Your task to perform on an android device: turn off notifications in google photos Image 0: 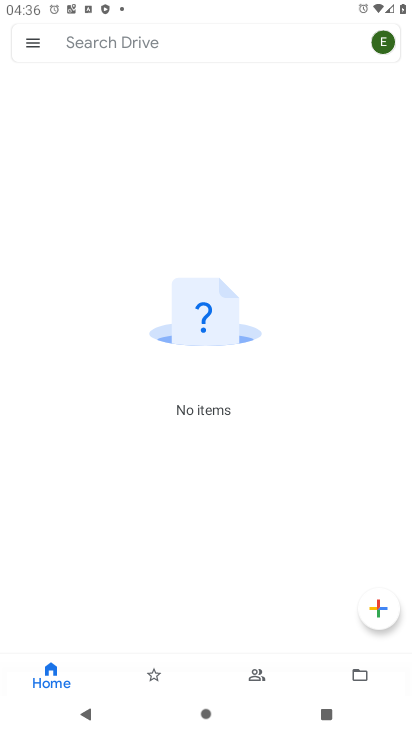
Step 0: press home button
Your task to perform on an android device: turn off notifications in google photos Image 1: 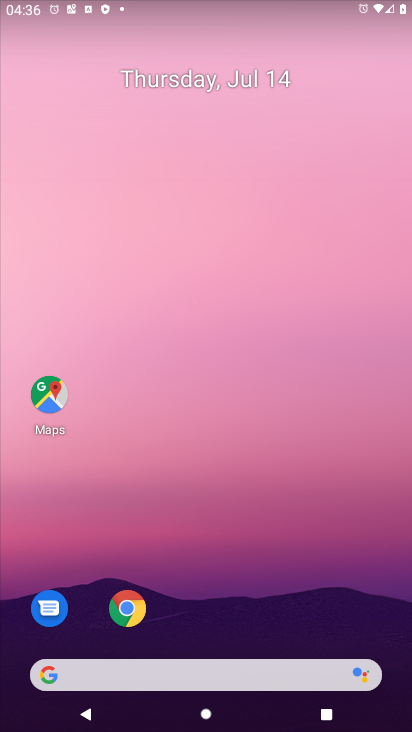
Step 1: drag from (386, 618) to (341, 131)
Your task to perform on an android device: turn off notifications in google photos Image 2: 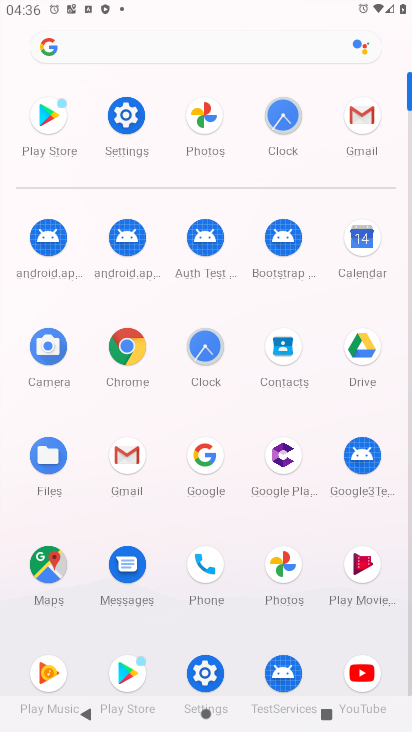
Step 2: click (279, 565)
Your task to perform on an android device: turn off notifications in google photos Image 3: 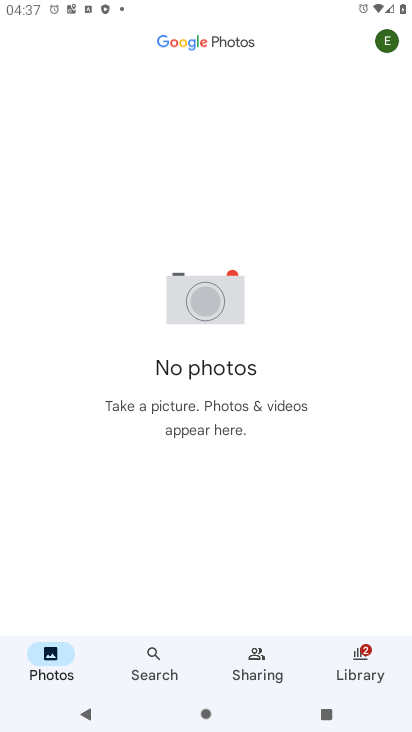
Step 3: click (387, 42)
Your task to perform on an android device: turn off notifications in google photos Image 4: 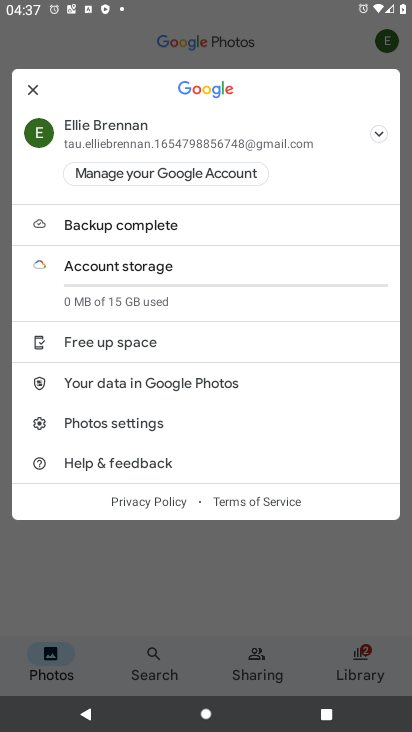
Step 4: click (143, 419)
Your task to perform on an android device: turn off notifications in google photos Image 5: 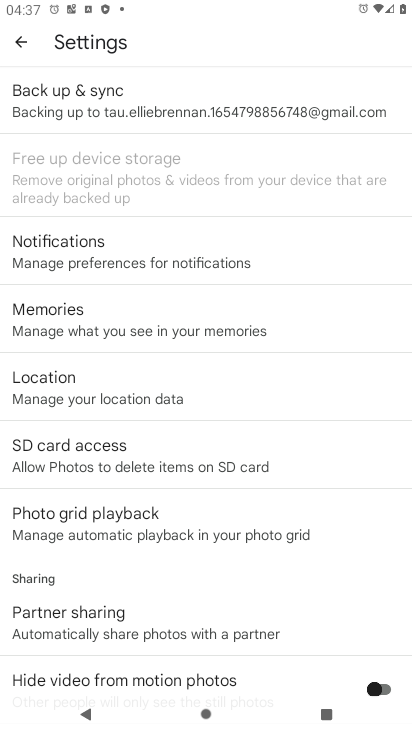
Step 5: click (69, 244)
Your task to perform on an android device: turn off notifications in google photos Image 6: 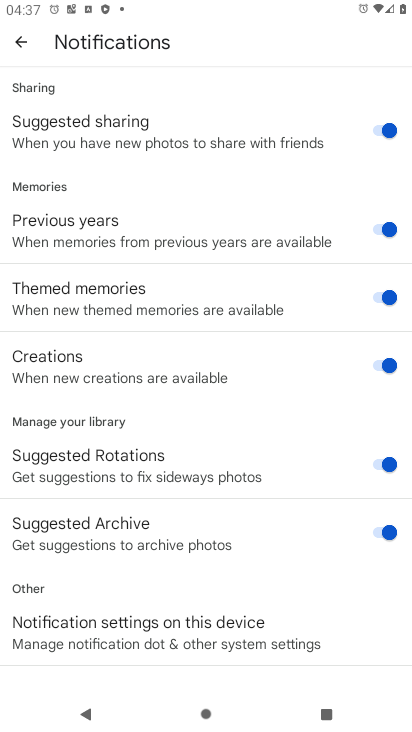
Step 6: click (133, 647)
Your task to perform on an android device: turn off notifications in google photos Image 7: 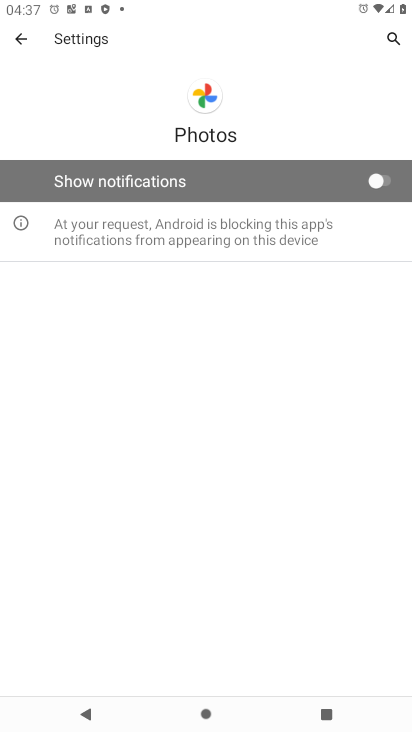
Step 7: task complete